Your task to perform on an android device: Find a nice sofa on eBay Image 0: 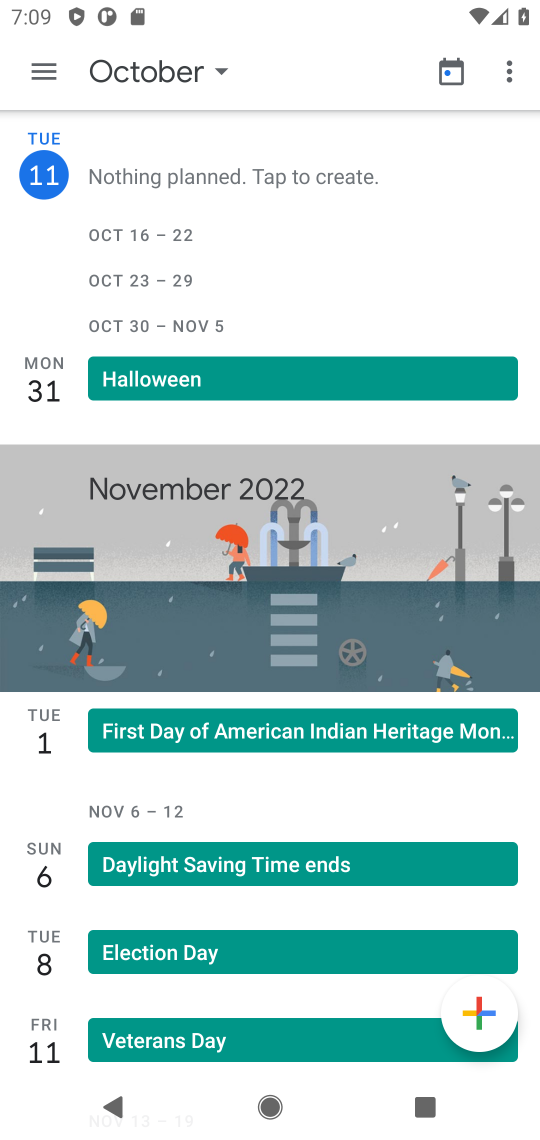
Step 0: press home button
Your task to perform on an android device: Find a nice sofa on eBay Image 1: 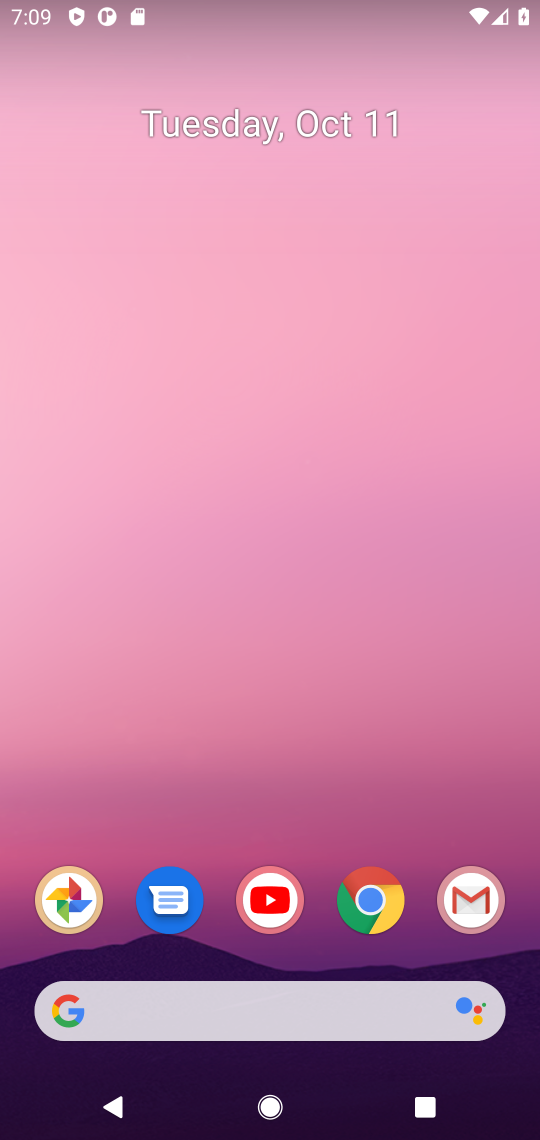
Step 1: click (364, 899)
Your task to perform on an android device: Find a nice sofa on eBay Image 2: 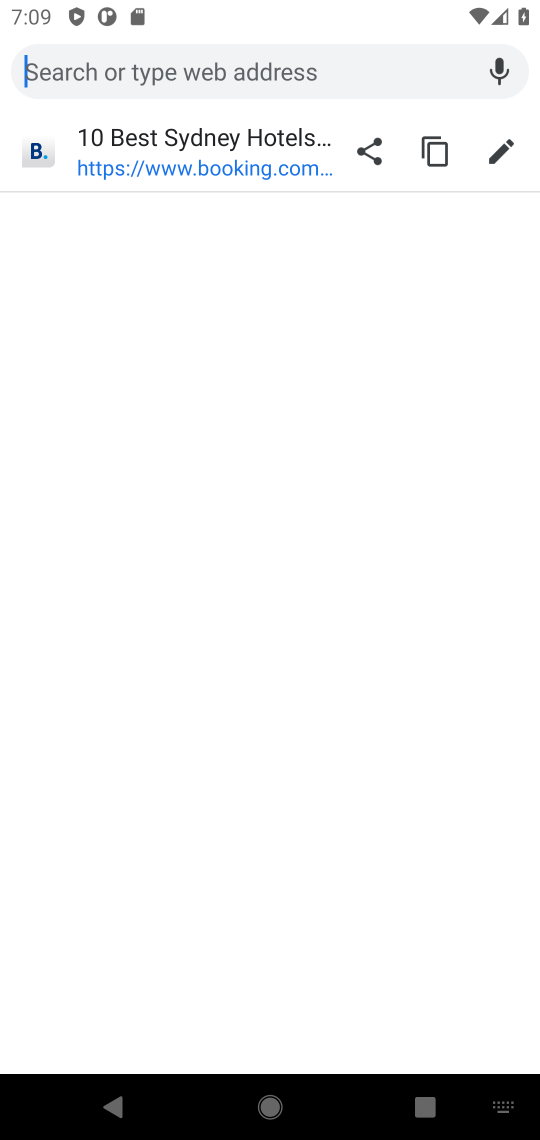
Step 2: click (283, 60)
Your task to perform on an android device: Find a nice sofa on eBay Image 3: 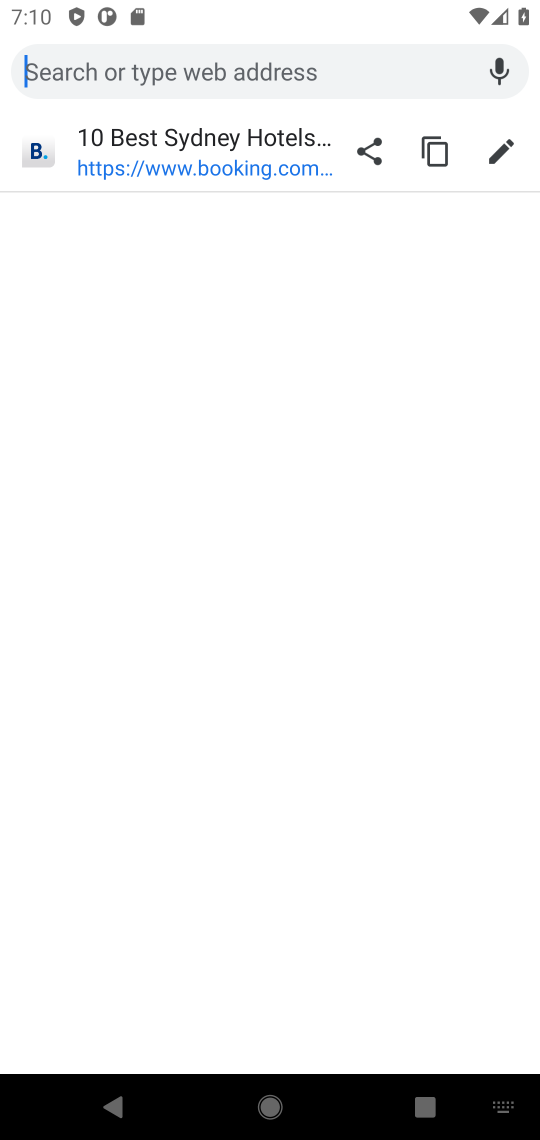
Step 3: type "nice sofa on eBay"
Your task to perform on an android device: Find a nice sofa on eBay Image 4: 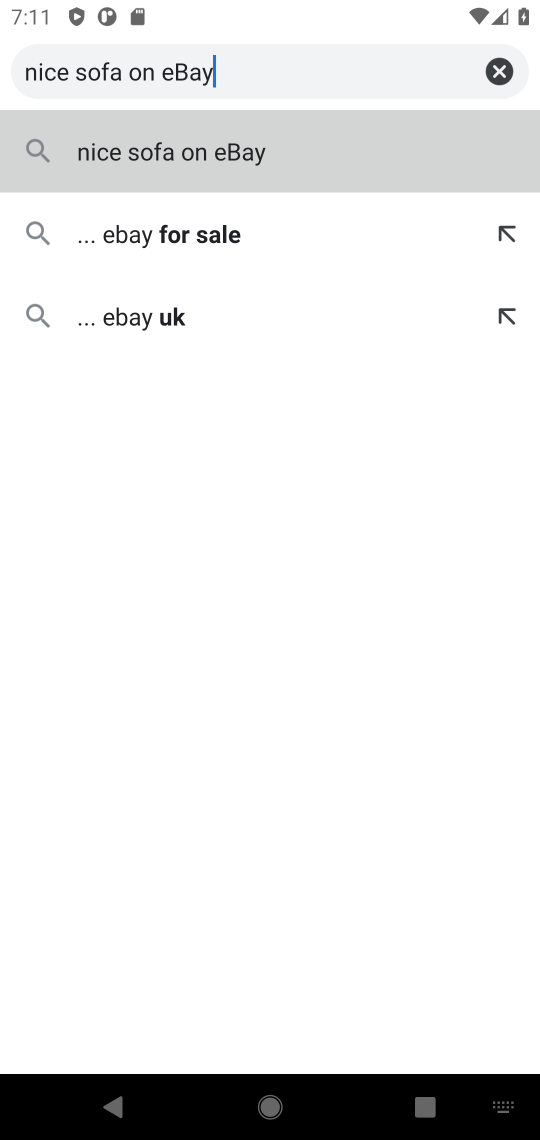
Step 4: click (222, 161)
Your task to perform on an android device: Find a nice sofa on eBay Image 5: 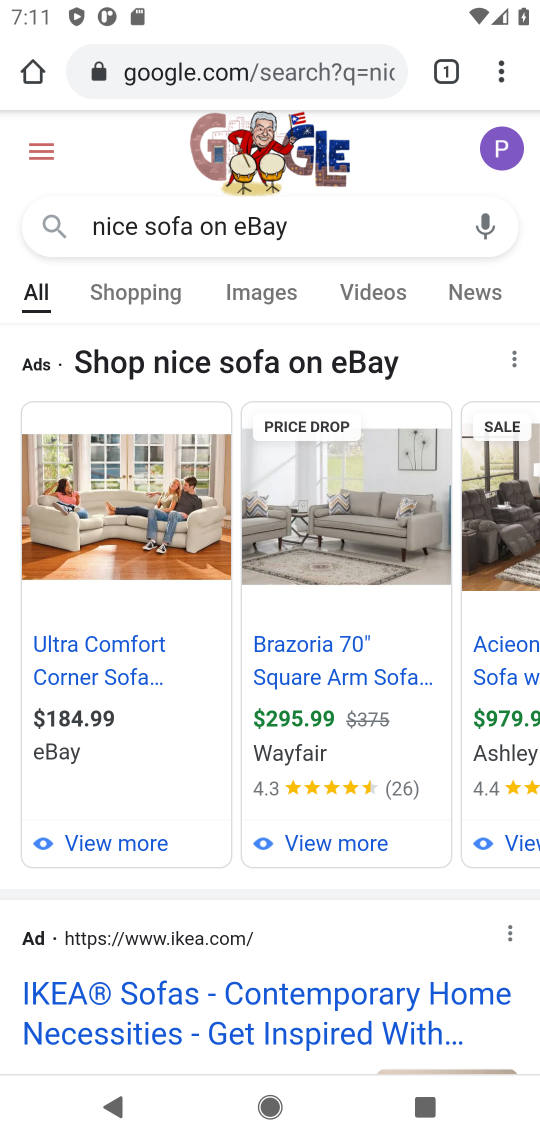
Step 5: click (178, 721)
Your task to perform on an android device: Find a nice sofa on eBay Image 6: 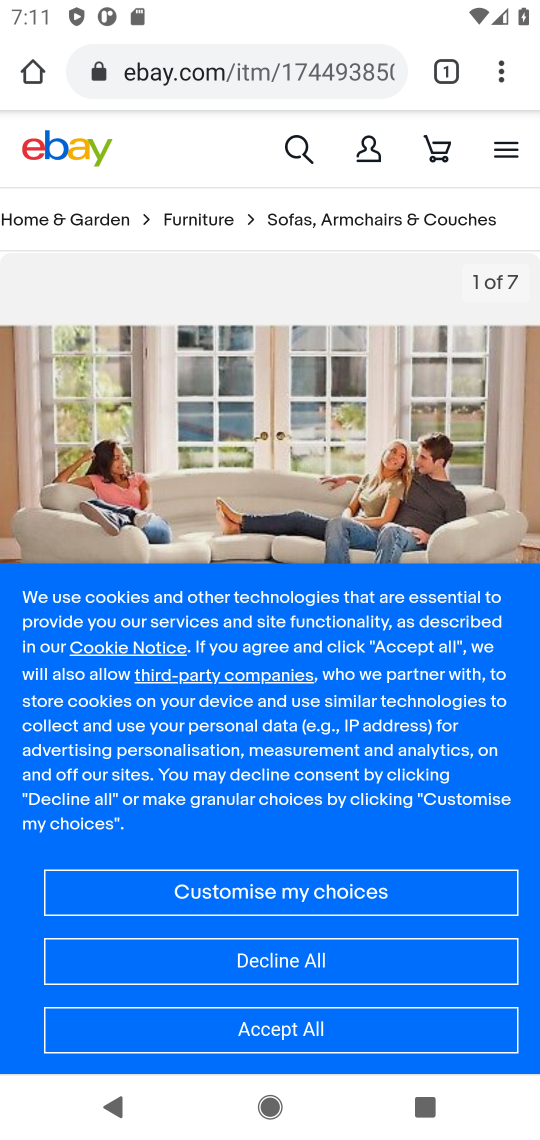
Step 6: click (375, 1045)
Your task to perform on an android device: Find a nice sofa on eBay Image 7: 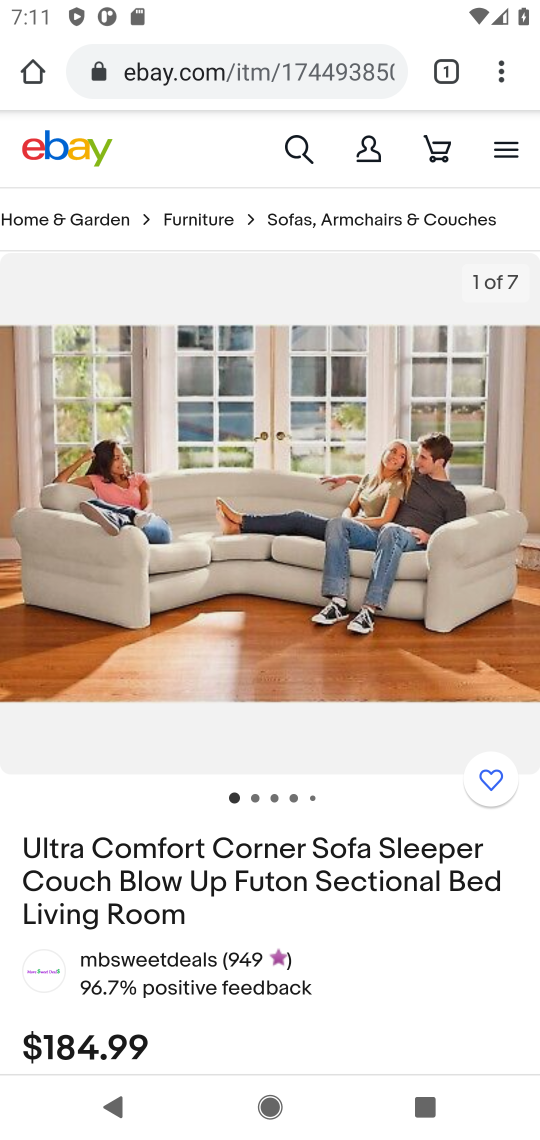
Step 7: task complete